Your task to perform on an android device: turn smart compose on in the gmail app Image 0: 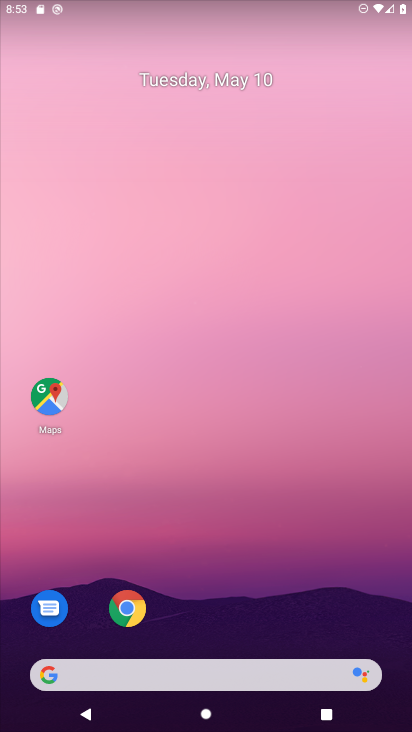
Step 0: drag from (345, 611) to (257, 54)
Your task to perform on an android device: turn smart compose on in the gmail app Image 1: 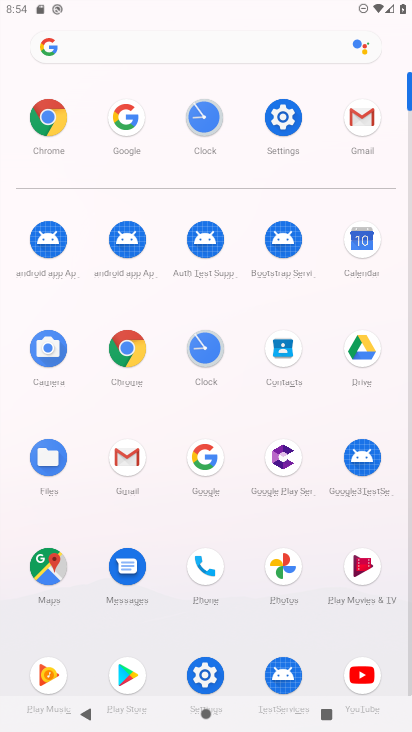
Step 1: click (120, 447)
Your task to perform on an android device: turn smart compose on in the gmail app Image 2: 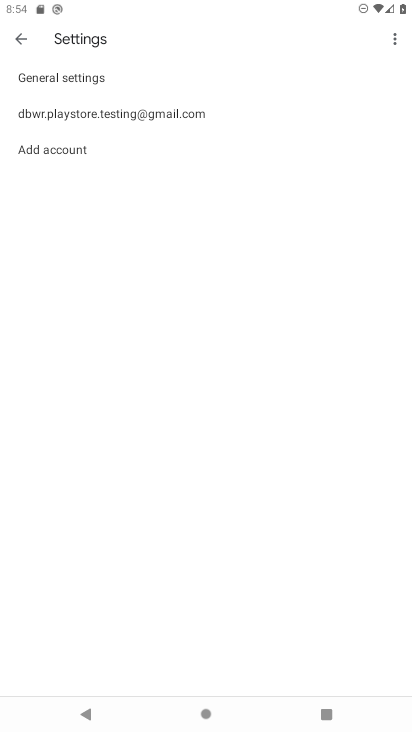
Step 2: click (129, 113)
Your task to perform on an android device: turn smart compose on in the gmail app Image 3: 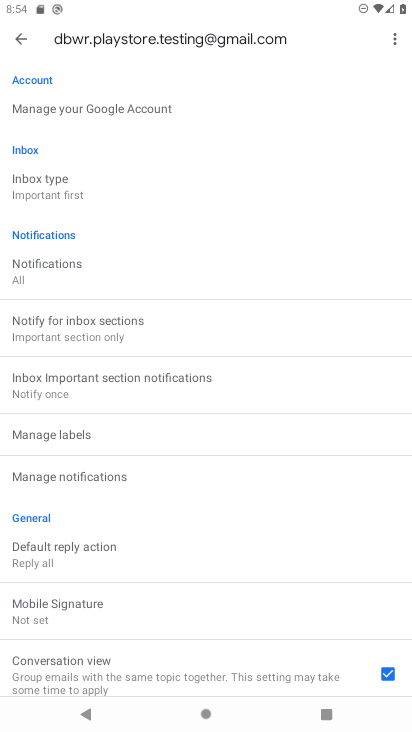
Step 3: task complete